Your task to perform on an android device: check battery use Image 0: 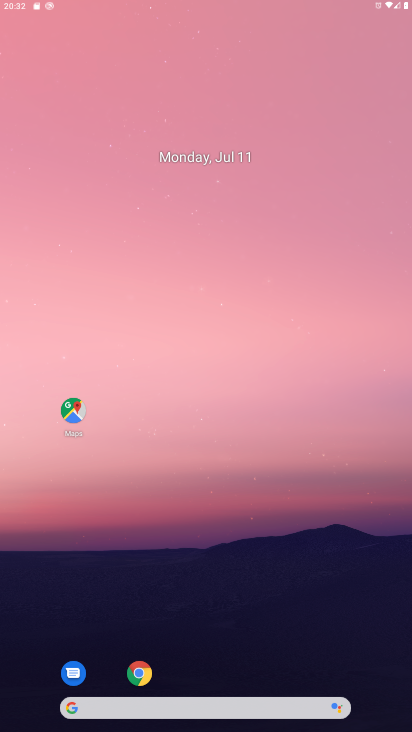
Step 0: press home button
Your task to perform on an android device: check battery use Image 1: 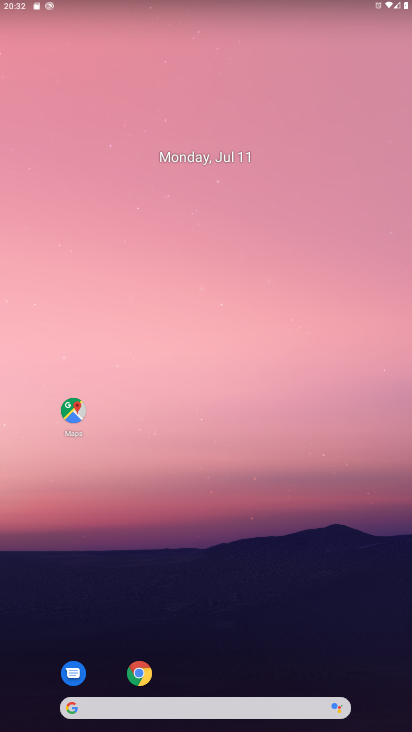
Step 1: drag from (206, 671) to (286, 8)
Your task to perform on an android device: check battery use Image 2: 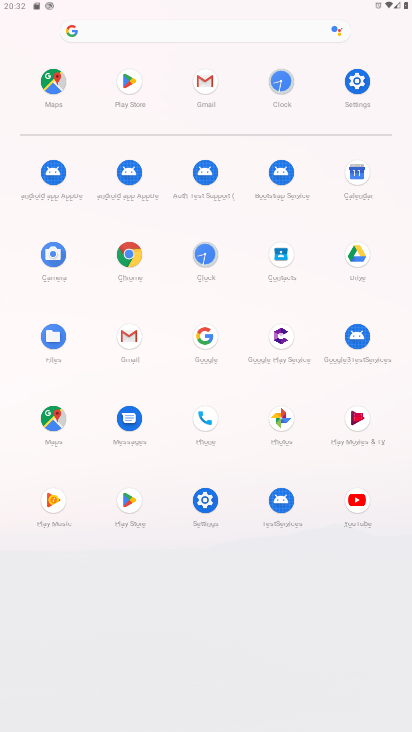
Step 2: click (356, 77)
Your task to perform on an android device: check battery use Image 3: 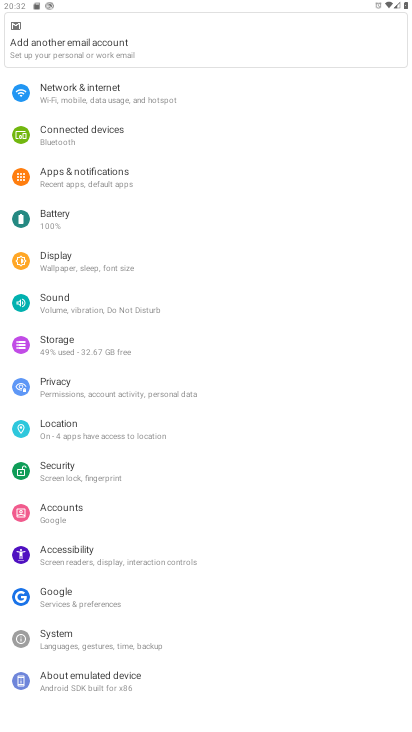
Step 3: click (78, 211)
Your task to perform on an android device: check battery use Image 4: 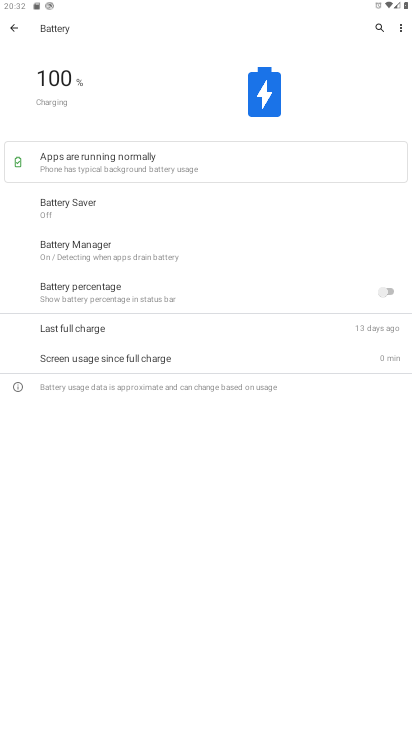
Step 4: click (399, 27)
Your task to perform on an android device: check battery use Image 5: 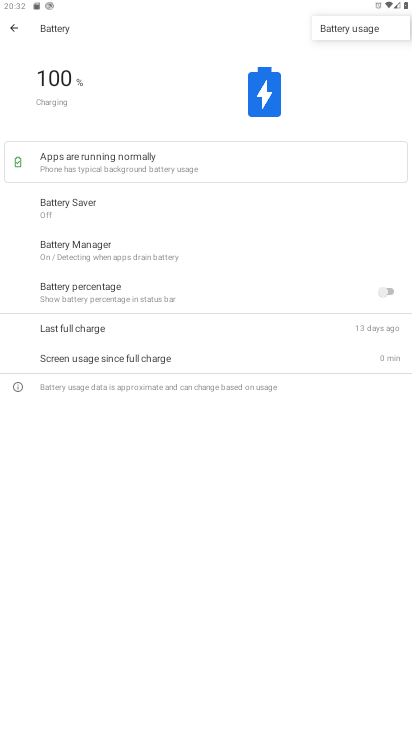
Step 5: click (343, 30)
Your task to perform on an android device: check battery use Image 6: 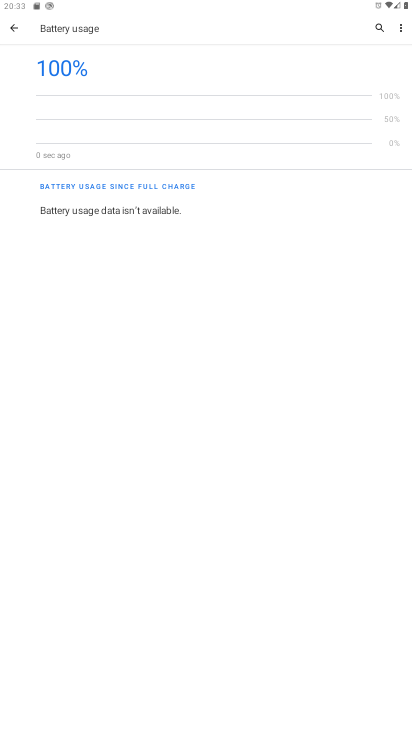
Step 6: task complete